Your task to perform on an android device: Open my contact list Image 0: 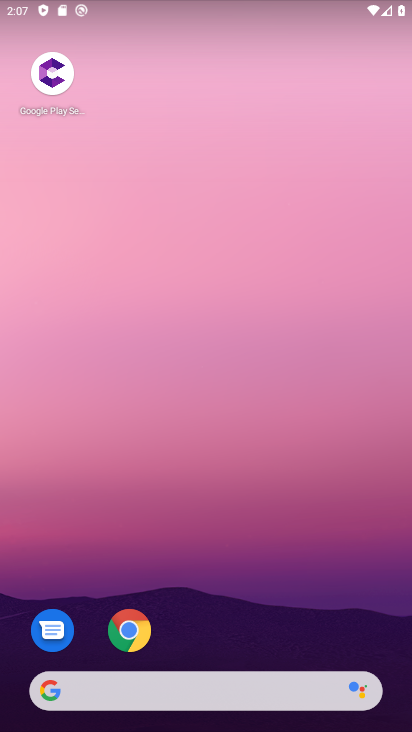
Step 0: drag from (262, 646) to (214, 231)
Your task to perform on an android device: Open my contact list Image 1: 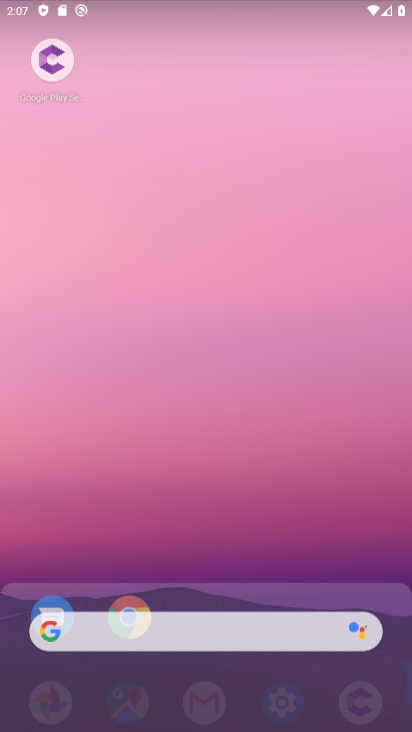
Step 1: drag from (180, 563) to (149, 225)
Your task to perform on an android device: Open my contact list Image 2: 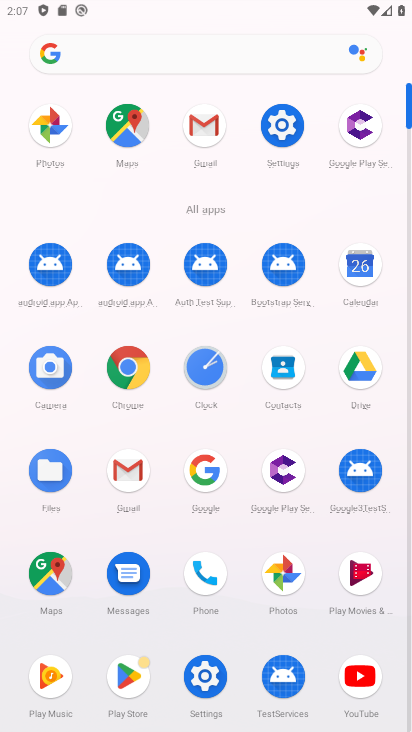
Step 2: click (282, 367)
Your task to perform on an android device: Open my contact list Image 3: 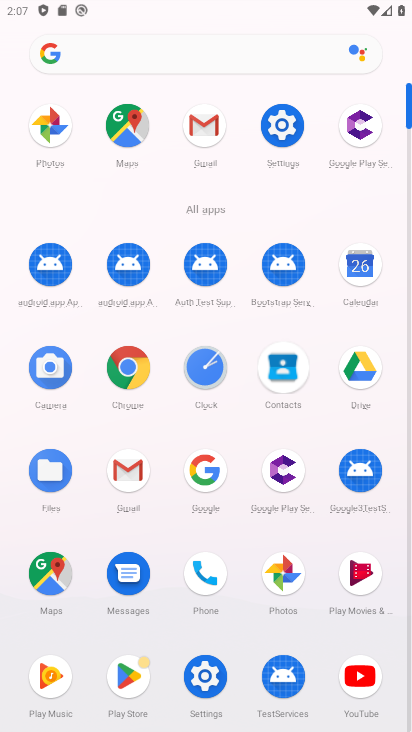
Step 3: click (282, 367)
Your task to perform on an android device: Open my contact list Image 4: 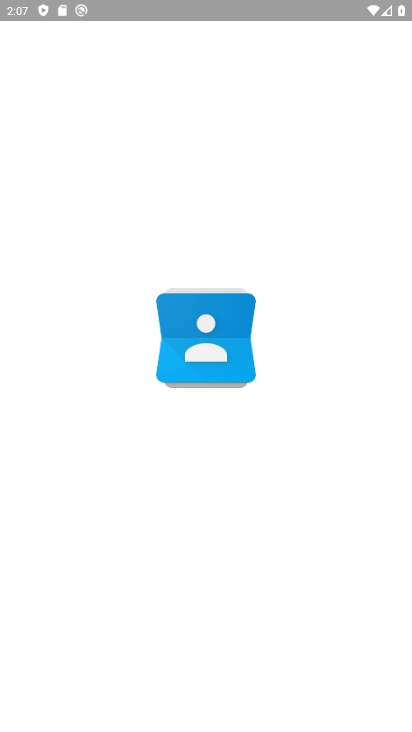
Step 4: click (277, 372)
Your task to perform on an android device: Open my contact list Image 5: 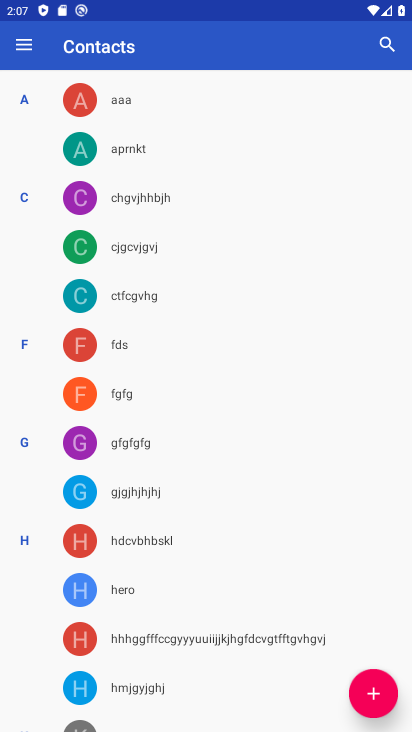
Step 5: task complete